Your task to perform on an android device: toggle notification dots Image 0: 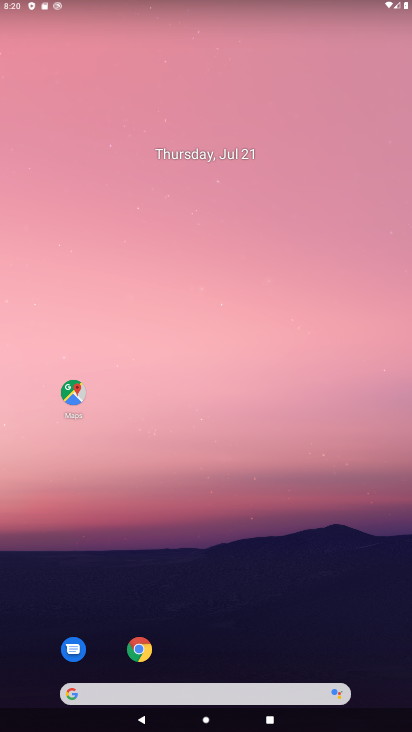
Step 0: drag from (203, 659) to (208, 138)
Your task to perform on an android device: toggle notification dots Image 1: 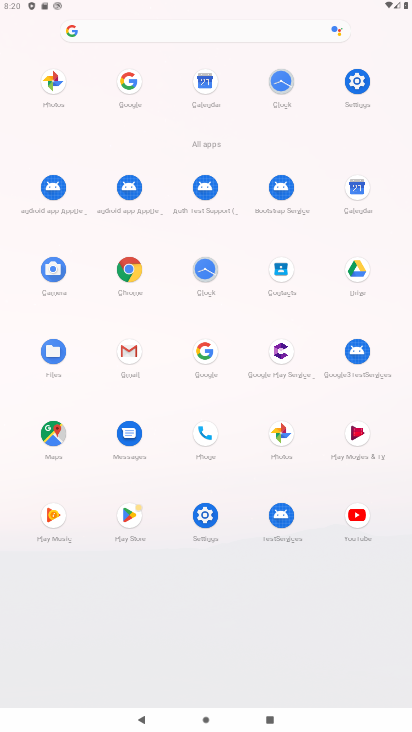
Step 1: click (357, 77)
Your task to perform on an android device: toggle notification dots Image 2: 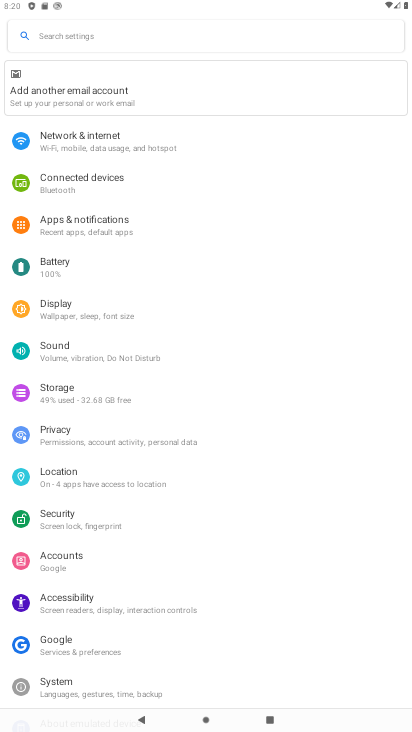
Step 2: click (73, 229)
Your task to perform on an android device: toggle notification dots Image 3: 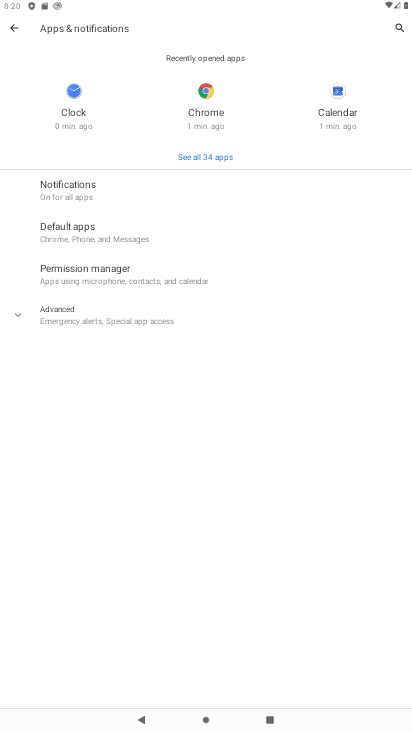
Step 3: click (82, 195)
Your task to perform on an android device: toggle notification dots Image 4: 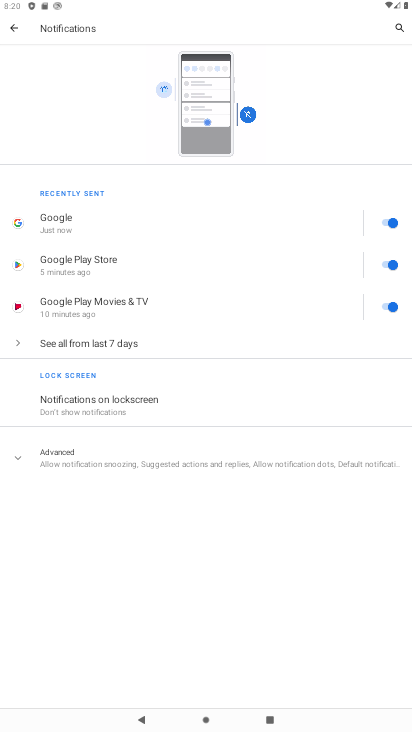
Step 4: click (58, 456)
Your task to perform on an android device: toggle notification dots Image 5: 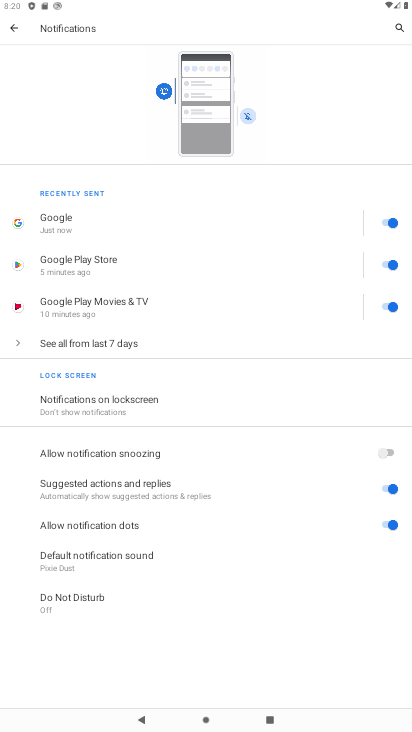
Step 5: click (387, 522)
Your task to perform on an android device: toggle notification dots Image 6: 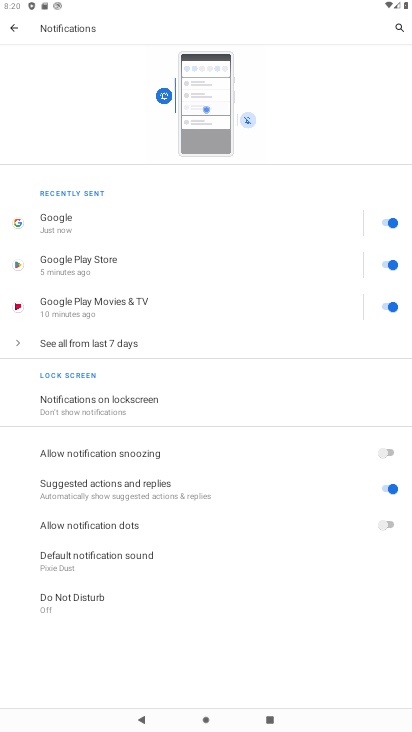
Step 6: task complete